Your task to perform on an android device: Open the calendar app, open the side menu, and click the "Day" option Image 0: 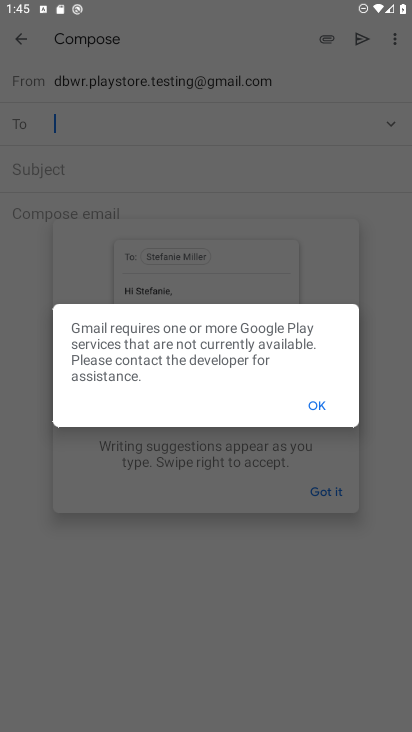
Step 0: press home button
Your task to perform on an android device: Open the calendar app, open the side menu, and click the "Day" option Image 1: 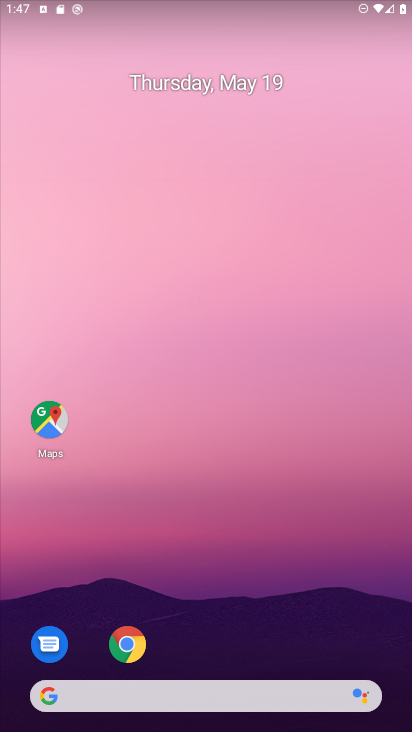
Step 1: drag from (318, 622) to (227, 72)
Your task to perform on an android device: Open the calendar app, open the side menu, and click the "Day" option Image 2: 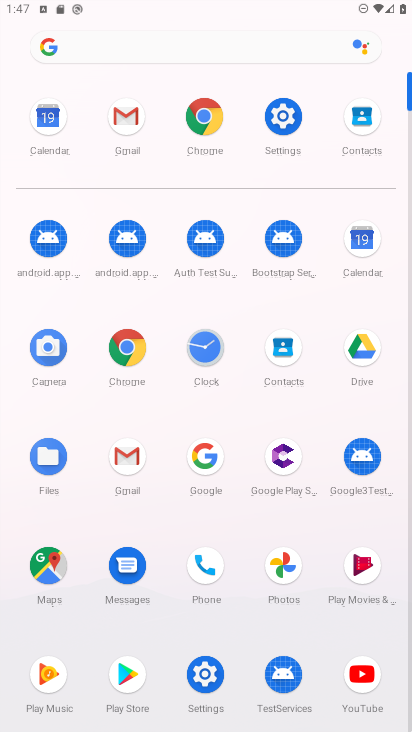
Step 2: click (363, 244)
Your task to perform on an android device: Open the calendar app, open the side menu, and click the "Day" option Image 3: 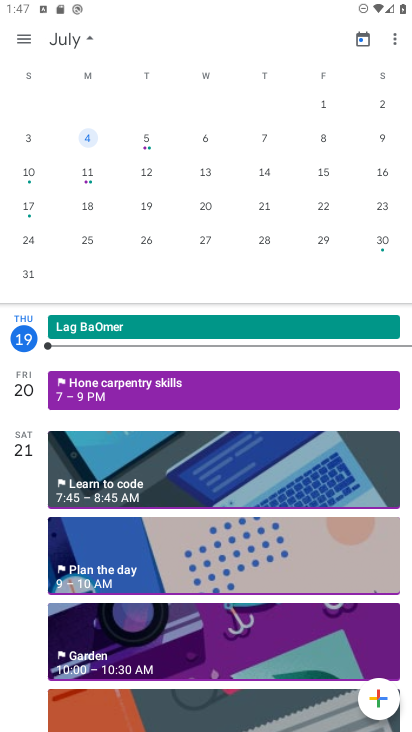
Step 3: click (27, 42)
Your task to perform on an android device: Open the calendar app, open the side menu, and click the "Day" option Image 4: 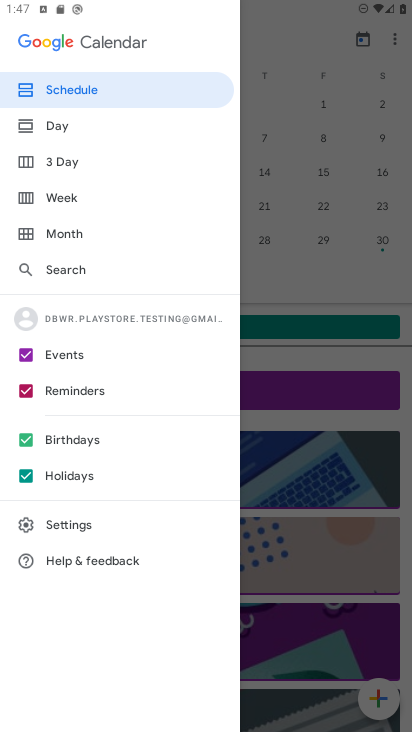
Step 4: click (37, 133)
Your task to perform on an android device: Open the calendar app, open the side menu, and click the "Day" option Image 5: 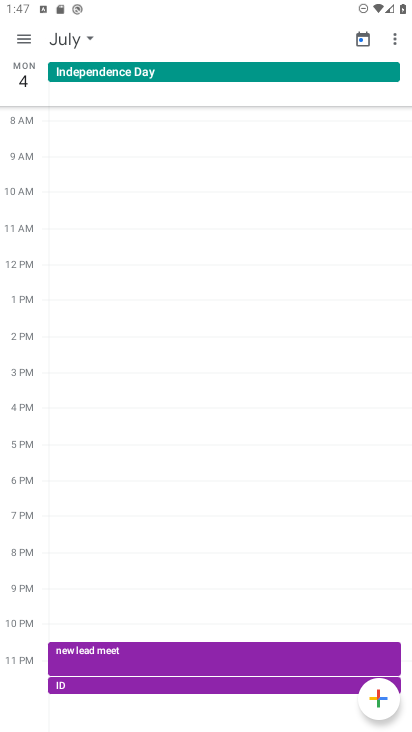
Step 5: task complete